Your task to perform on an android device: Open notification settings Image 0: 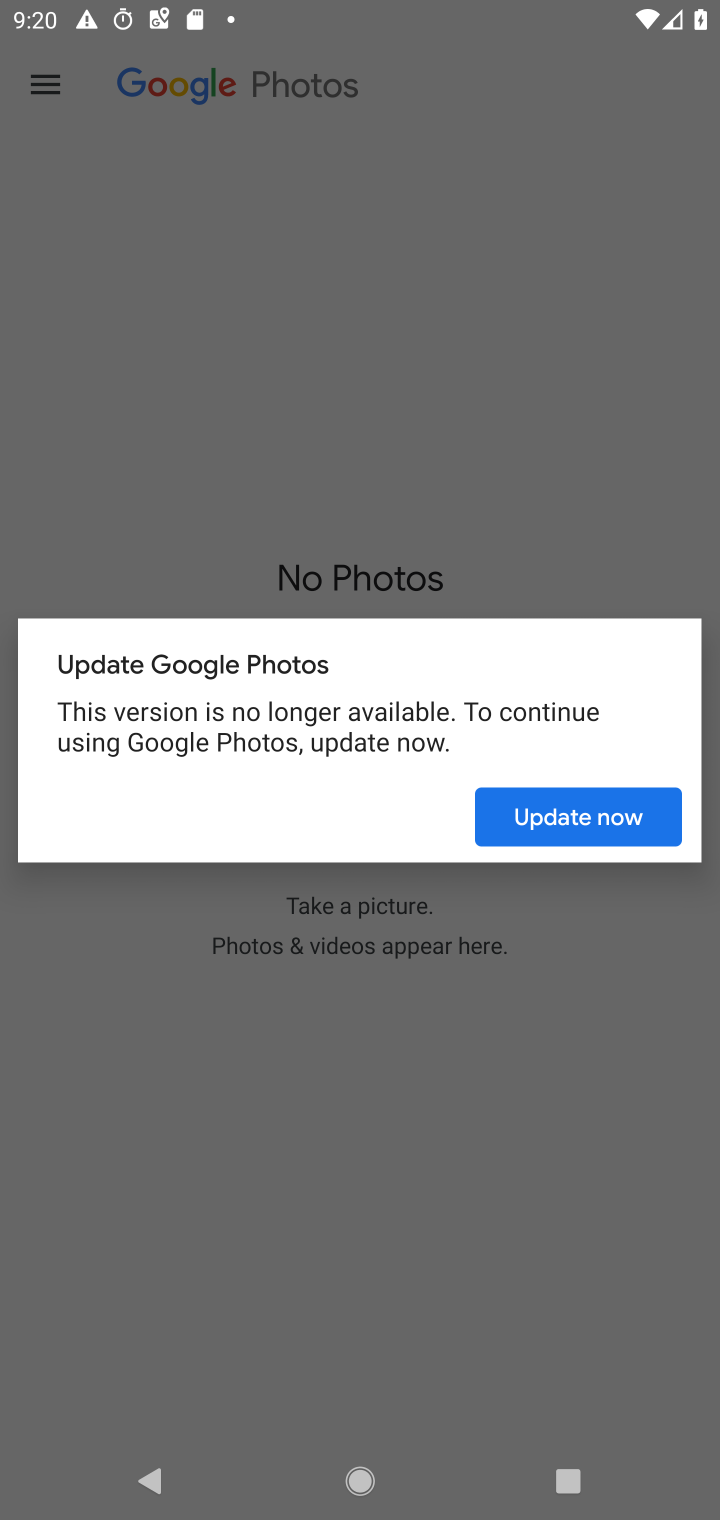
Step 0: press home button
Your task to perform on an android device: Open notification settings Image 1: 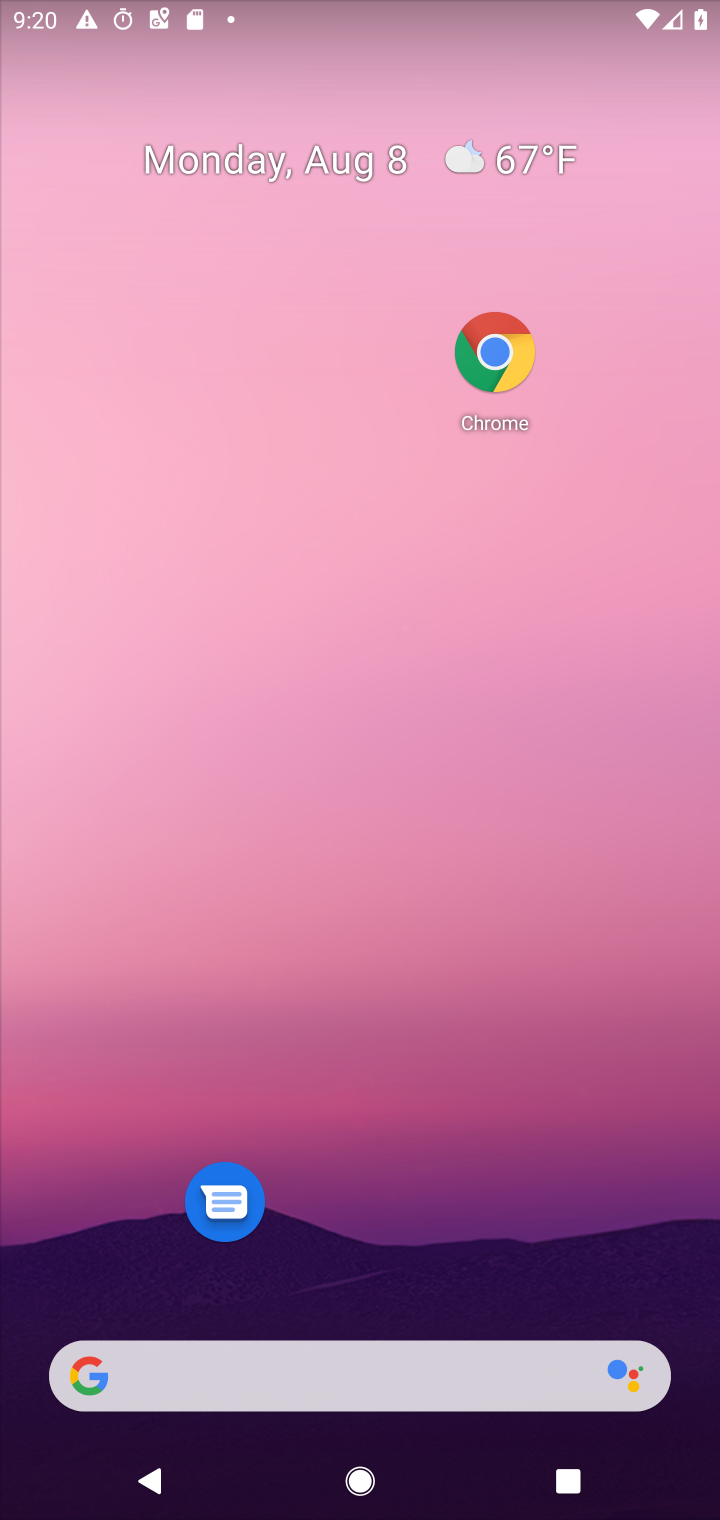
Step 1: drag from (409, 476) to (466, 0)
Your task to perform on an android device: Open notification settings Image 2: 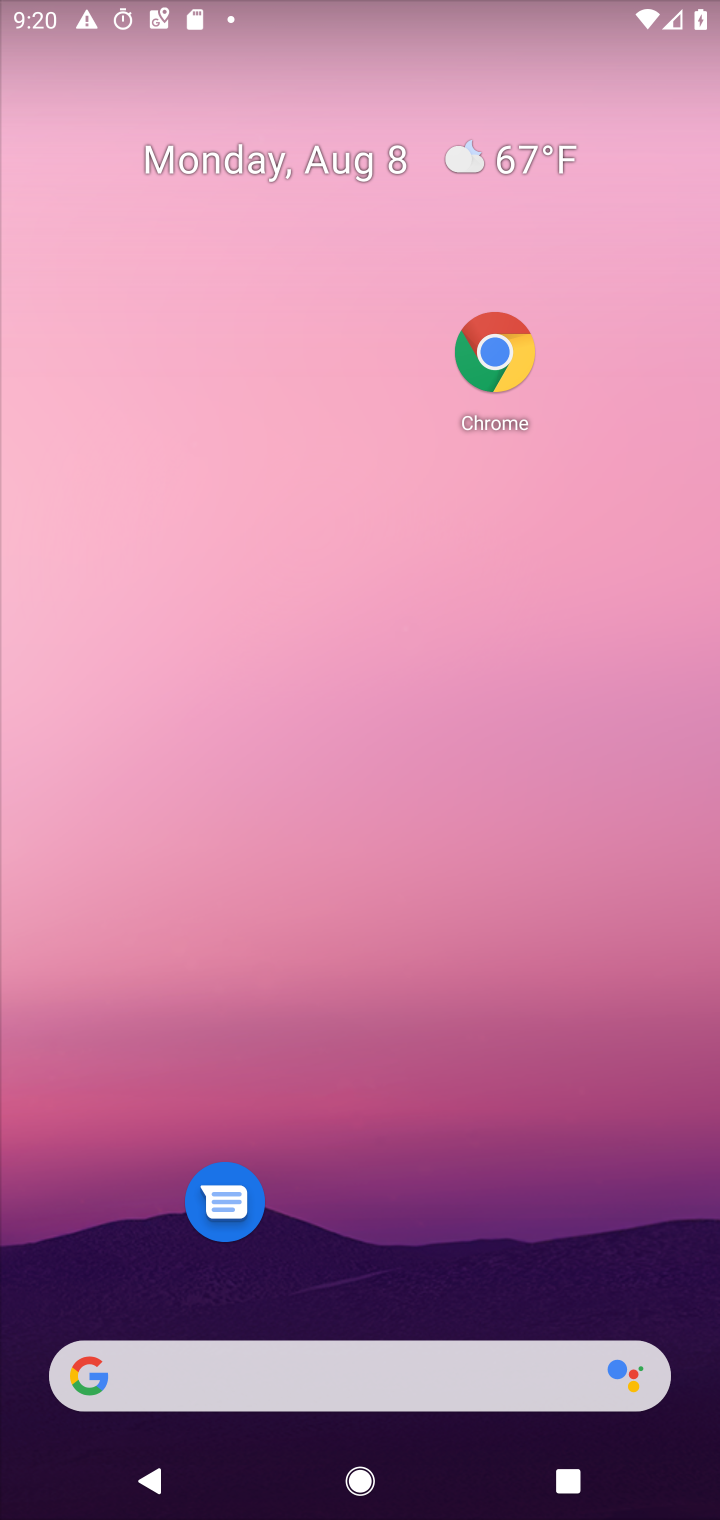
Step 2: drag from (408, 1211) to (404, 27)
Your task to perform on an android device: Open notification settings Image 3: 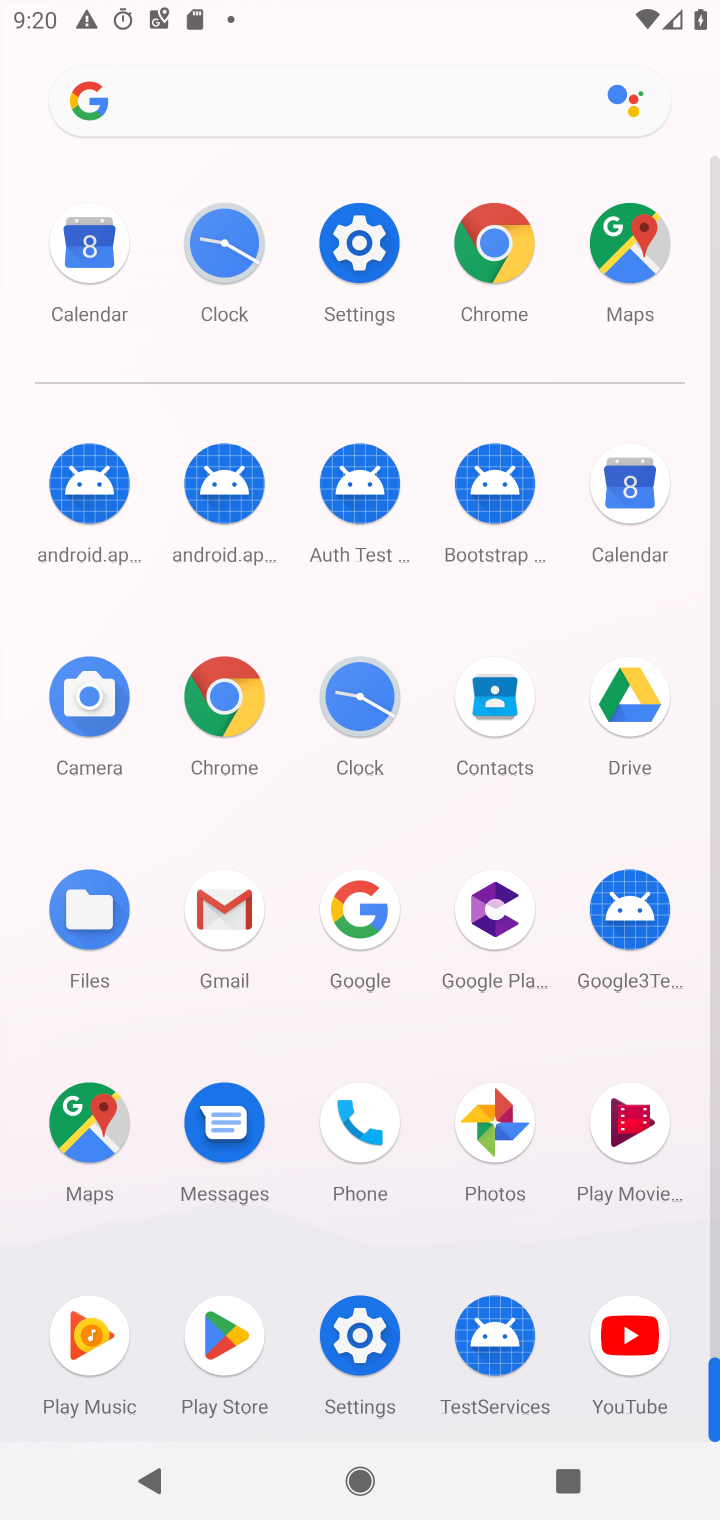
Step 3: click (370, 283)
Your task to perform on an android device: Open notification settings Image 4: 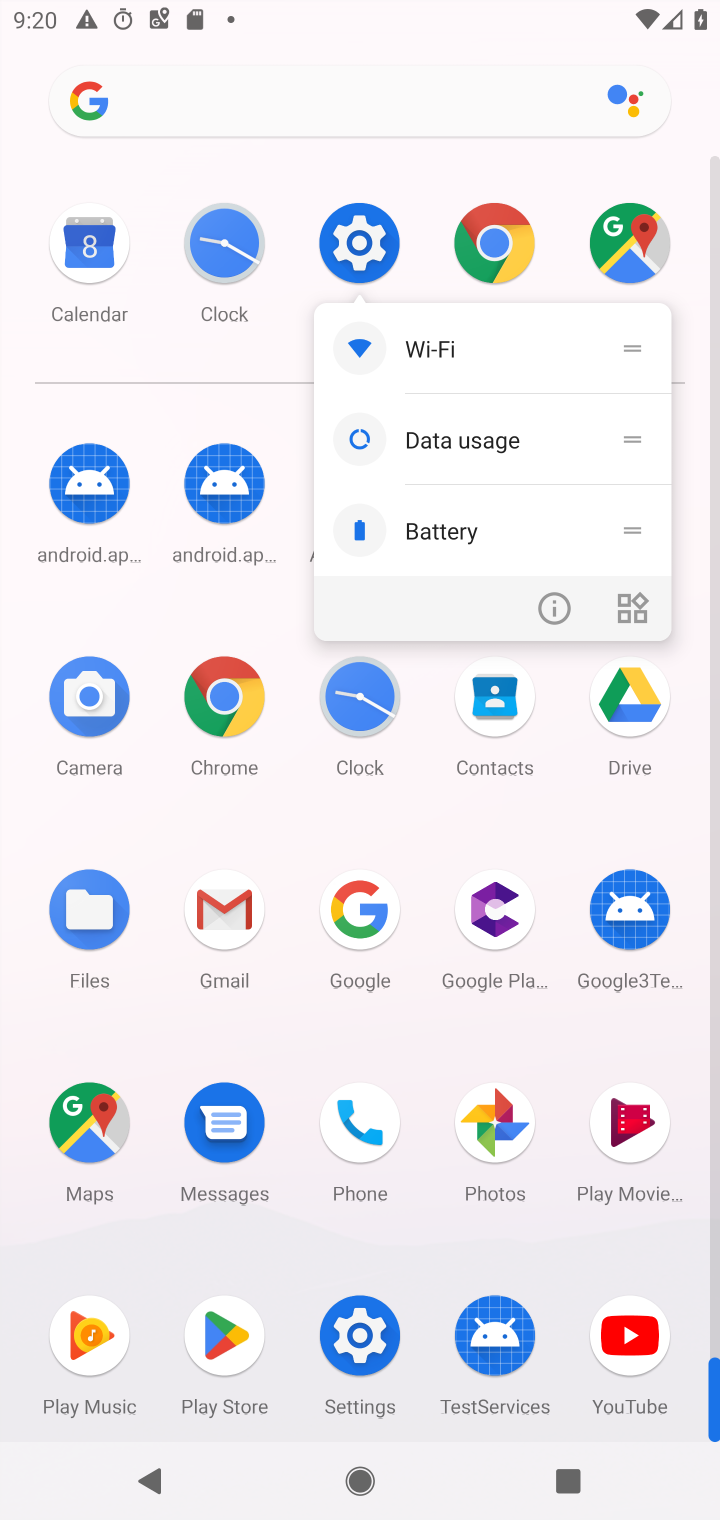
Step 4: click (346, 246)
Your task to perform on an android device: Open notification settings Image 5: 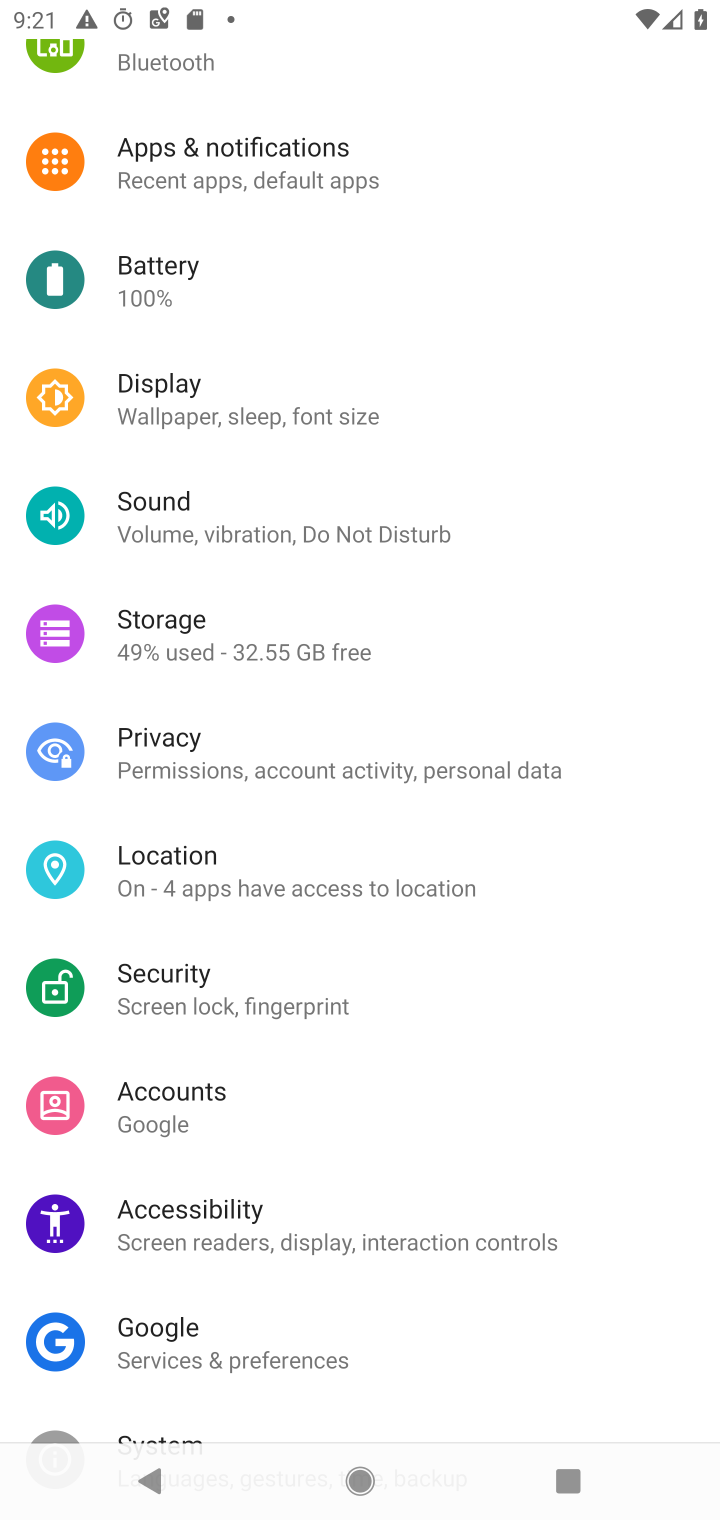
Step 5: click (222, 172)
Your task to perform on an android device: Open notification settings Image 6: 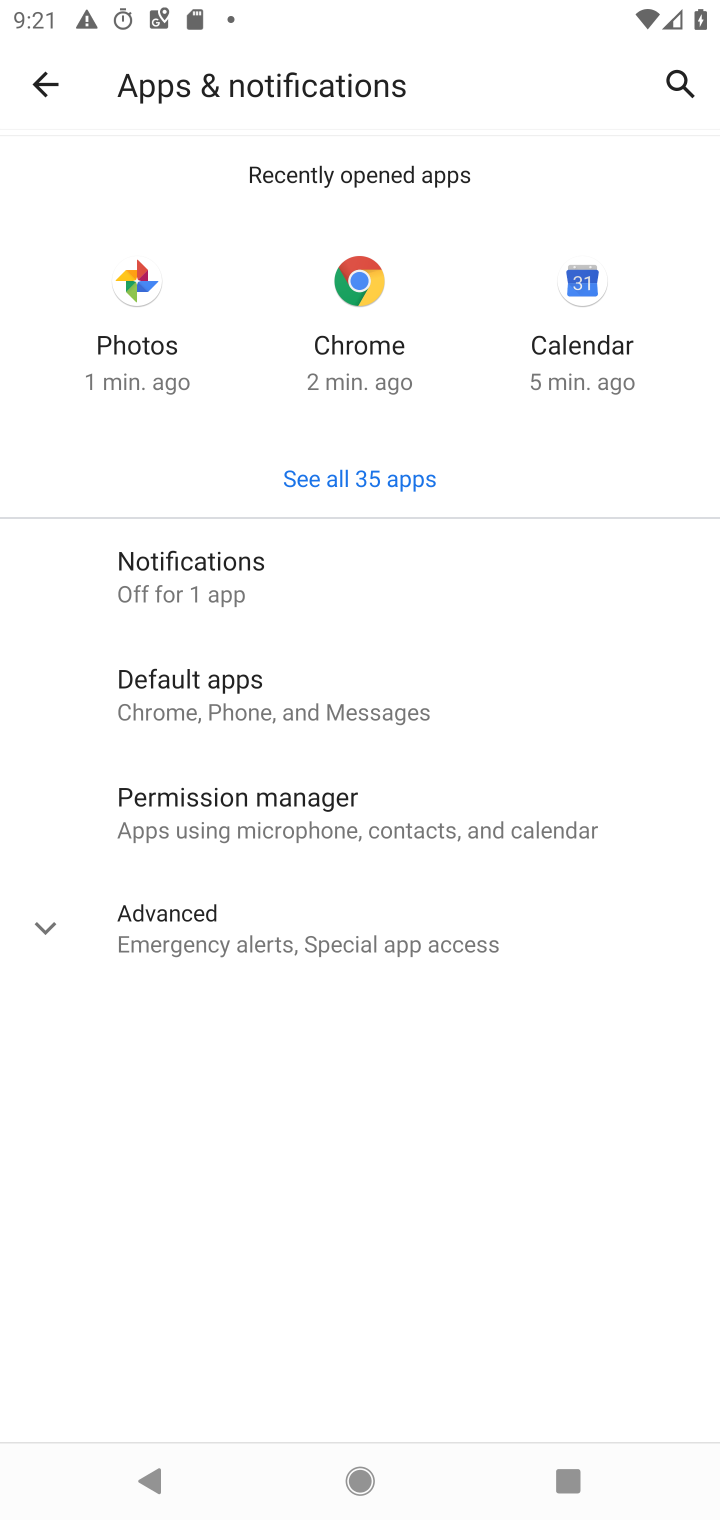
Step 6: click (261, 573)
Your task to perform on an android device: Open notification settings Image 7: 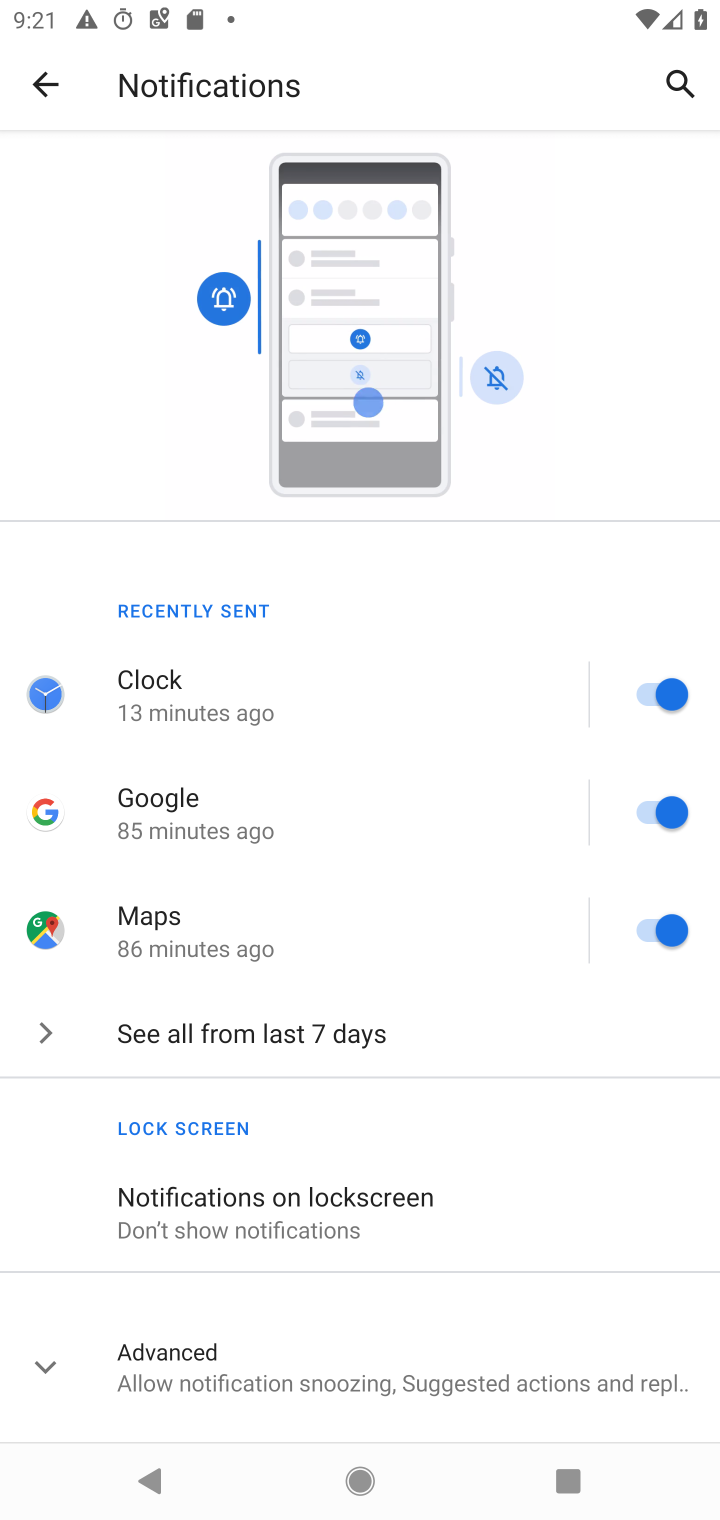
Step 7: task complete